Your task to perform on an android device: turn on improve location accuracy Image 0: 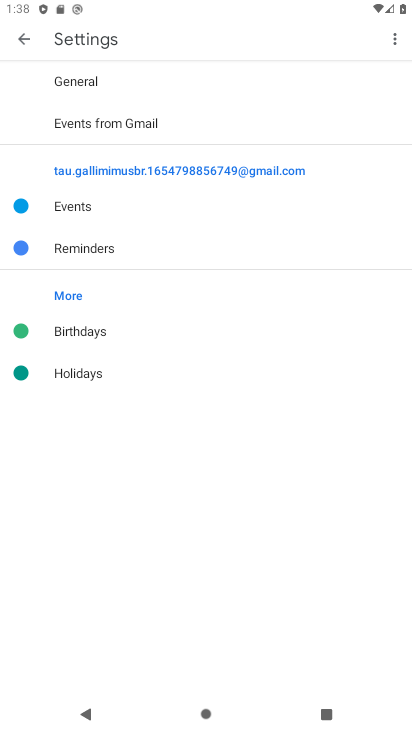
Step 0: press home button
Your task to perform on an android device: turn on improve location accuracy Image 1: 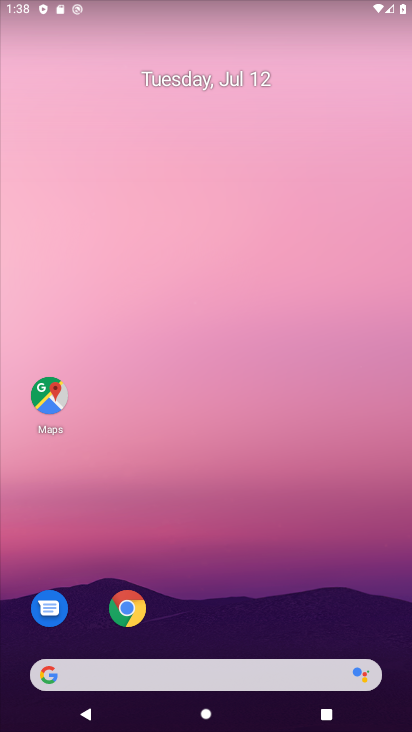
Step 1: drag from (322, 627) to (276, 157)
Your task to perform on an android device: turn on improve location accuracy Image 2: 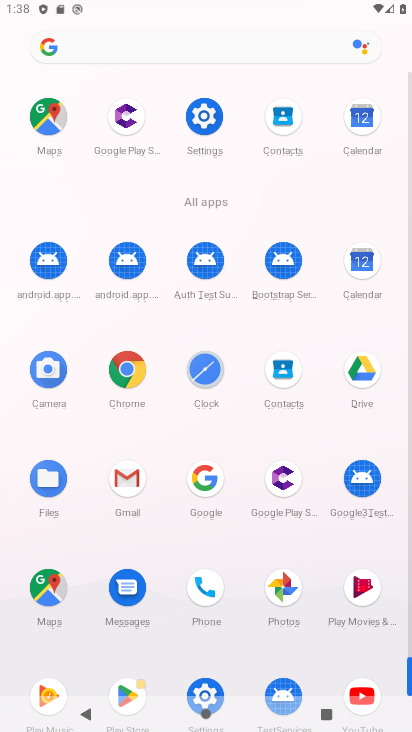
Step 2: click (201, 106)
Your task to perform on an android device: turn on improve location accuracy Image 3: 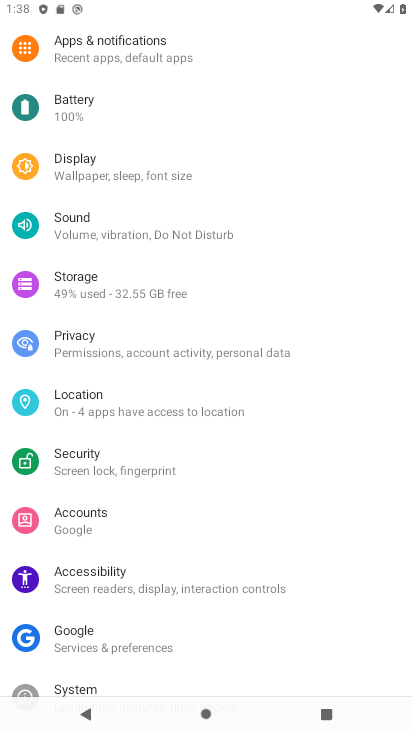
Step 3: click (126, 402)
Your task to perform on an android device: turn on improve location accuracy Image 4: 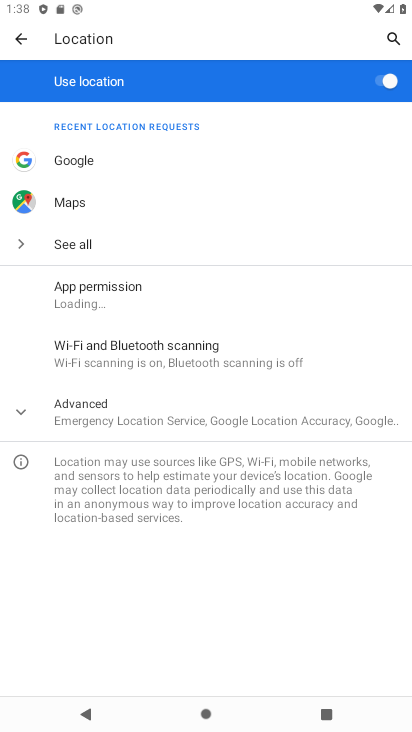
Step 4: click (87, 404)
Your task to perform on an android device: turn on improve location accuracy Image 5: 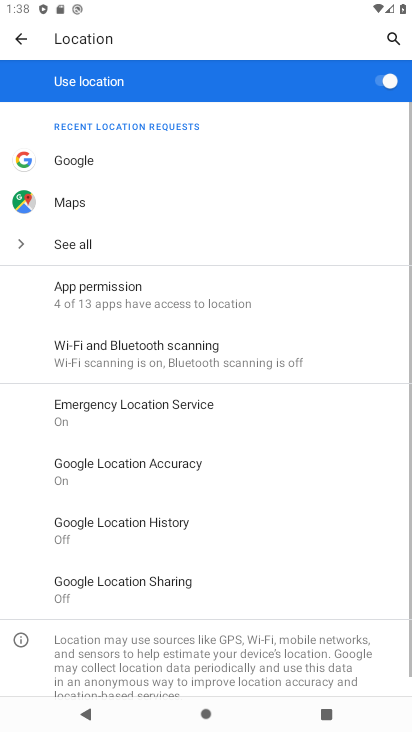
Step 5: click (171, 456)
Your task to perform on an android device: turn on improve location accuracy Image 6: 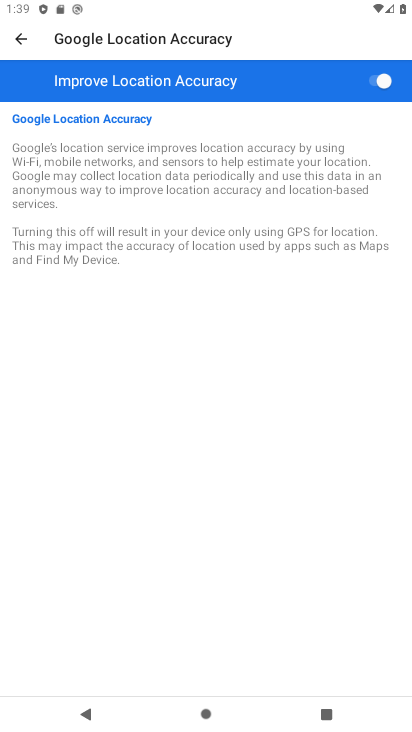
Step 6: task complete